Your task to perform on an android device: When is my next meeting? Image 0: 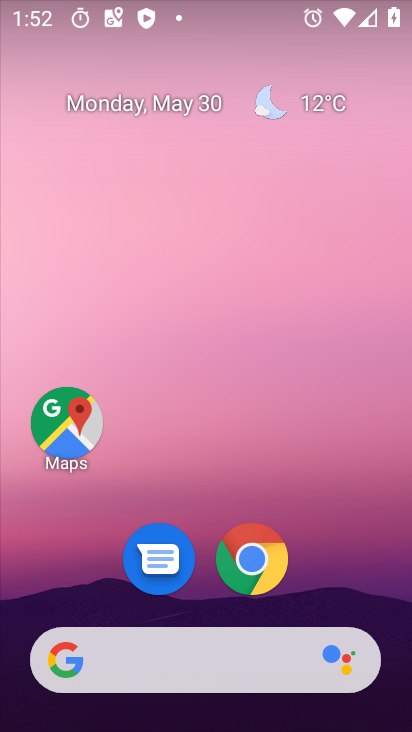
Step 0: drag from (185, 544) to (252, 90)
Your task to perform on an android device: When is my next meeting? Image 1: 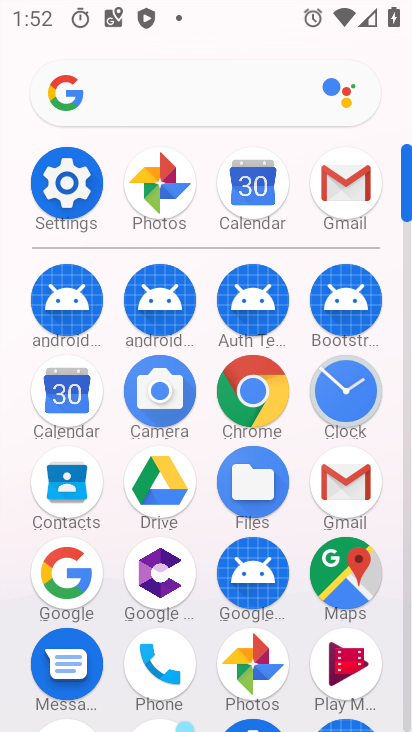
Step 1: click (65, 388)
Your task to perform on an android device: When is my next meeting? Image 2: 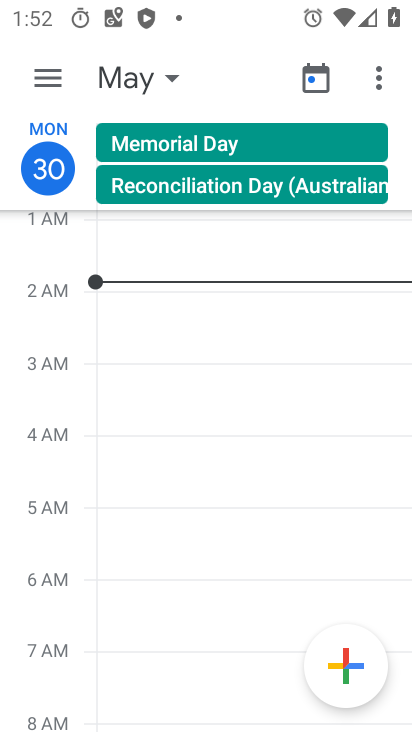
Step 2: click (44, 78)
Your task to perform on an android device: When is my next meeting? Image 3: 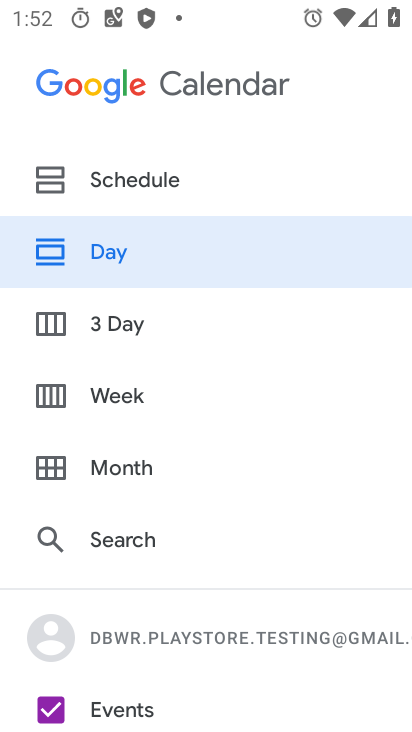
Step 3: click (111, 182)
Your task to perform on an android device: When is my next meeting? Image 4: 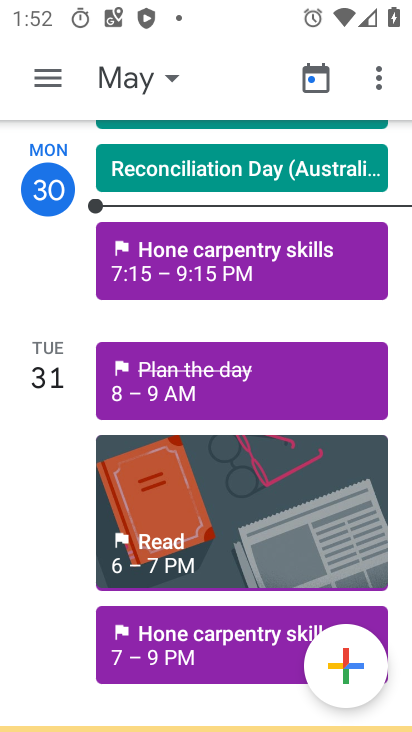
Step 4: drag from (195, 584) to (312, 63)
Your task to perform on an android device: When is my next meeting? Image 5: 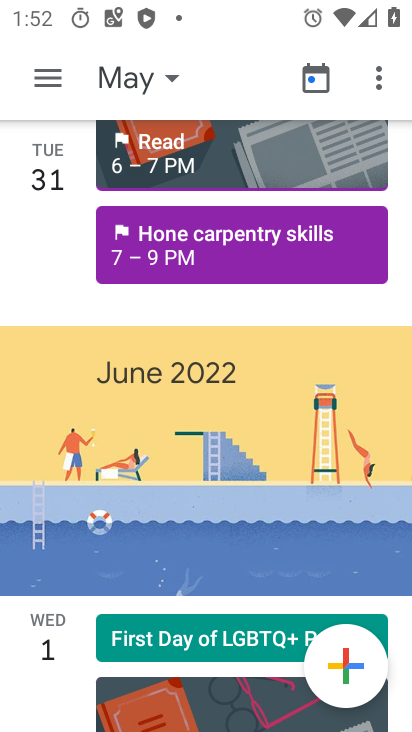
Step 5: drag from (174, 609) to (246, 85)
Your task to perform on an android device: When is my next meeting? Image 6: 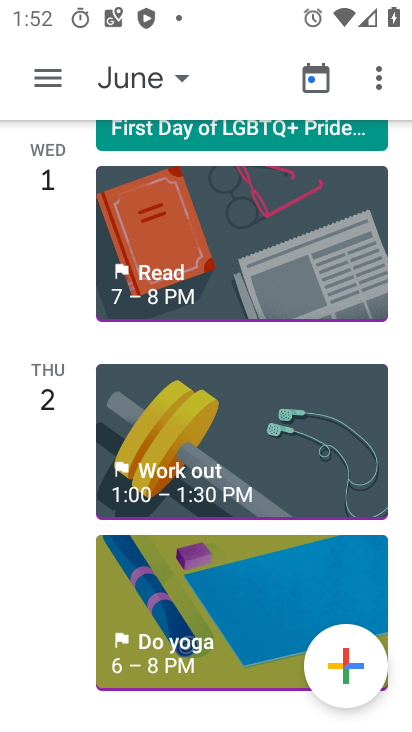
Step 6: drag from (162, 647) to (239, 151)
Your task to perform on an android device: When is my next meeting? Image 7: 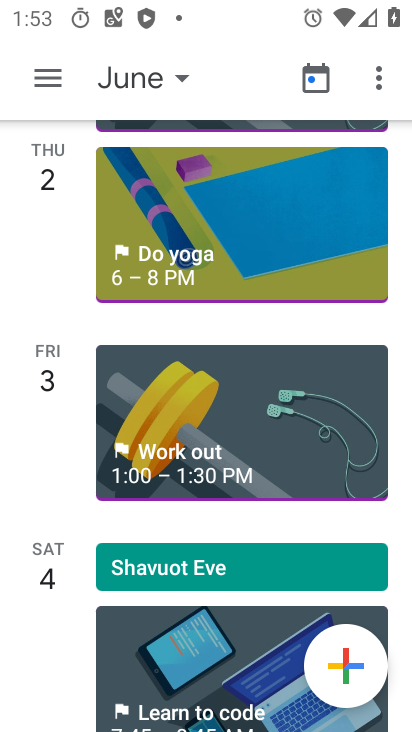
Step 7: drag from (142, 586) to (226, 117)
Your task to perform on an android device: When is my next meeting? Image 8: 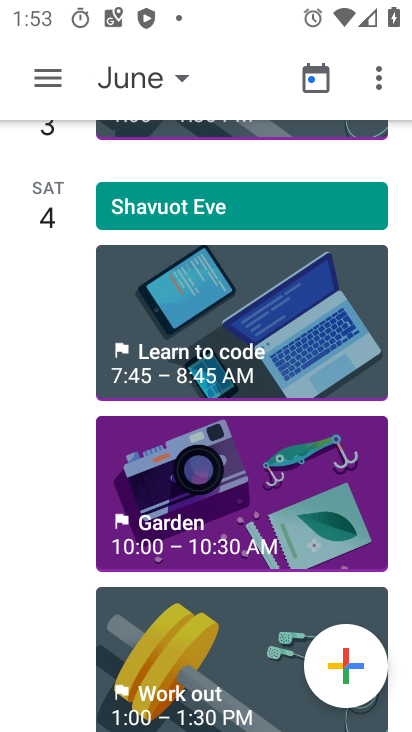
Step 8: drag from (151, 664) to (239, 89)
Your task to perform on an android device: When is my next meeting? Image 9: 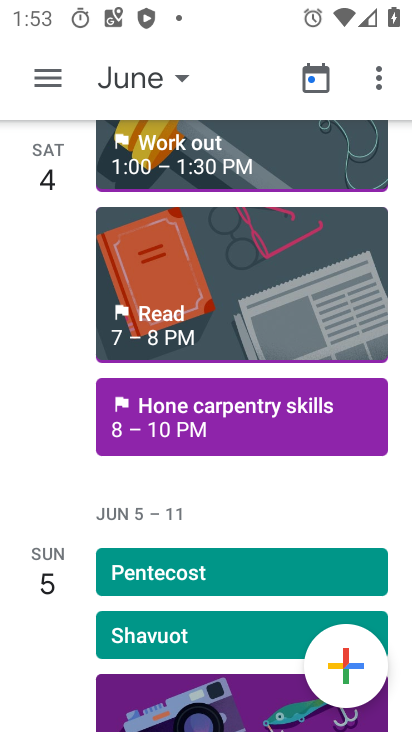
Step 9: drag from (166, 657) to (285, 88)
Your task to perform on an android device: When is my next meeting? Image 10: 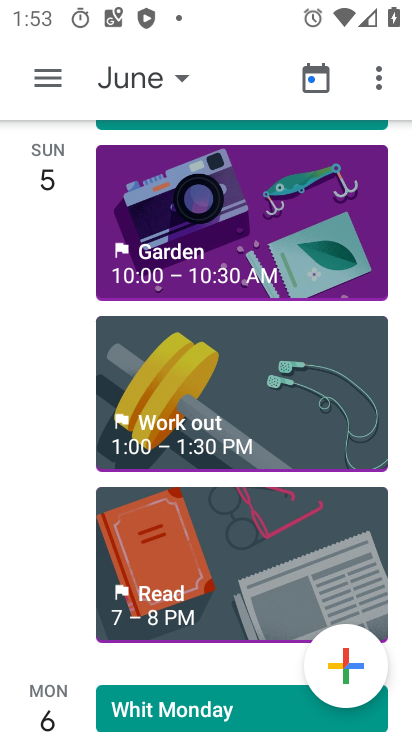
Step 10: drag from (176, 657) to (261, 81)
Your task to perform on an android device: When is my next meeting? Image 11: 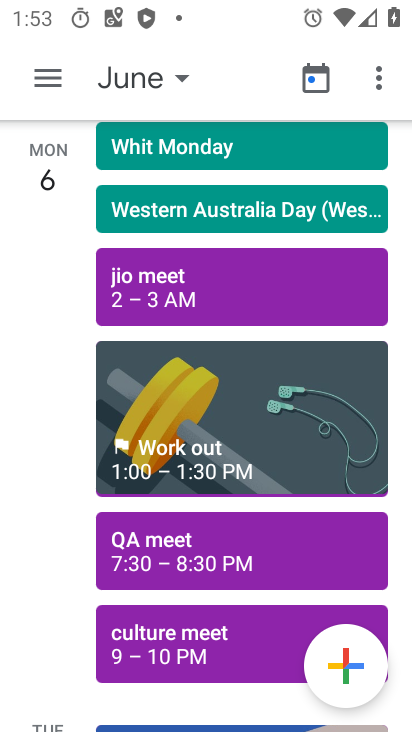
Step 11: click (165, 282)
Your task to perform on an android device: When is my next meeting? Image 12: 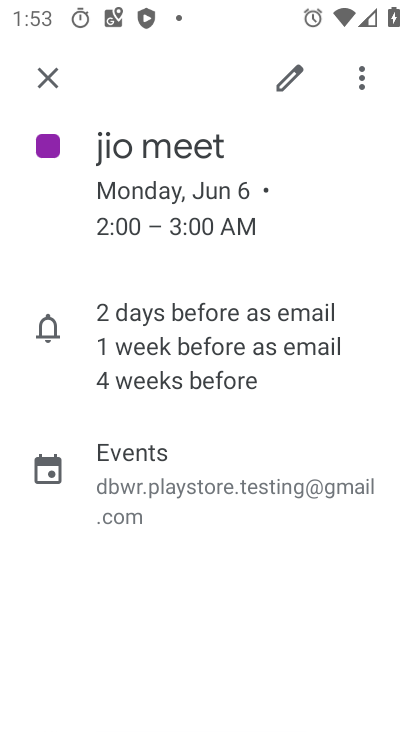
Step 12: task complete